Your task to perform on an android device: turn vacation reply on in the gmail app Image 0: 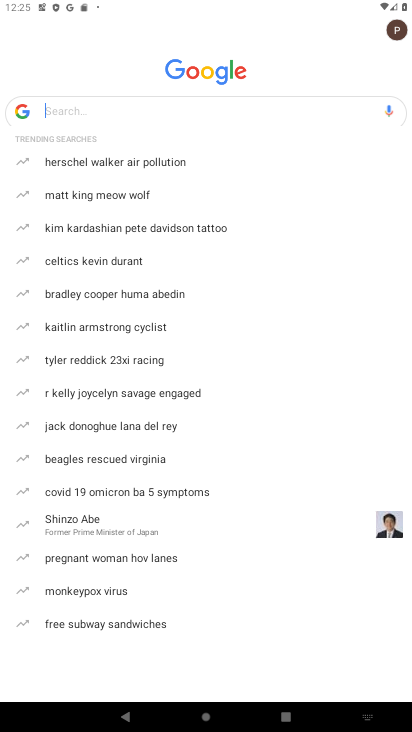
Step 0: press home button
Your task to perform on an android device: turn vacation reply on in the gmail app Image 1: 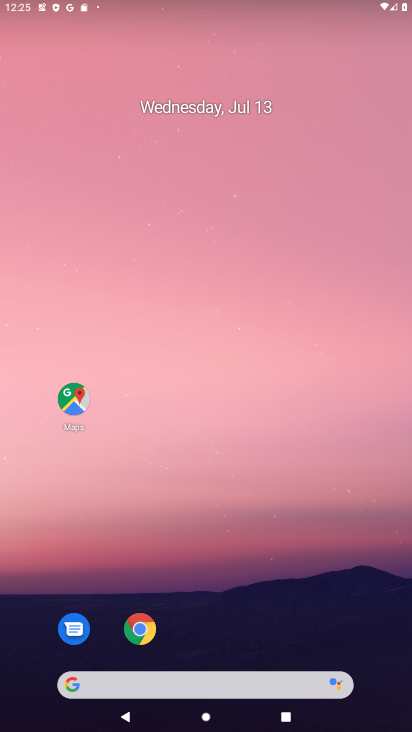
Step 1: drag from (229, 500) to (235, 176)
Your task to perform on an android device: turn vacation reply on in the gmail app Image 2: 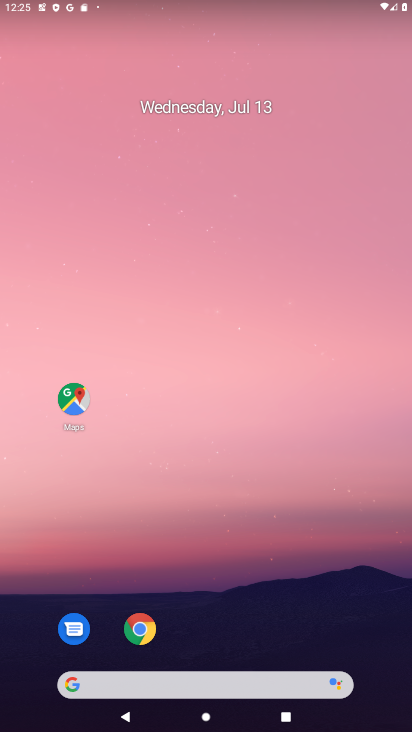
Step 2: drag from (241, 615) to (280, 169)
Your task to perform on an android device: turn vacation reply on in the gmail app Image 3: 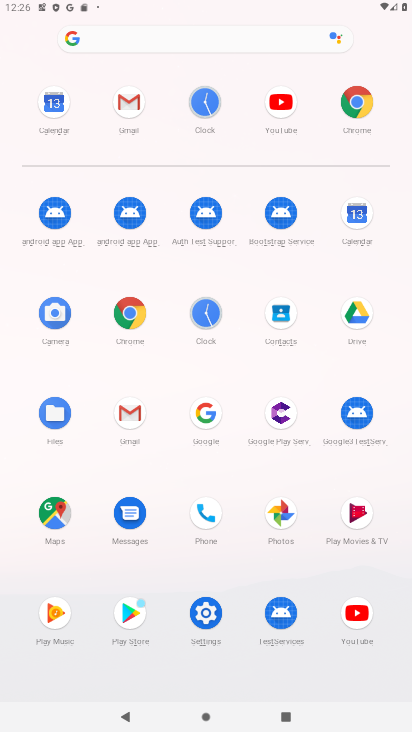
Step 3: click (127, 104)
Your task to perform on an android device: turn vacation reply on in the gmail app Image 4: 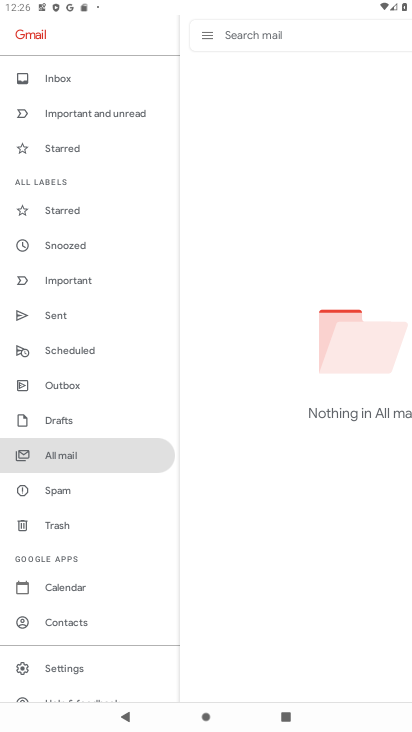
Step 4: click (63, 660)
Your task to perform on an android device: turn vacation reply on in the gmail app Image 5: 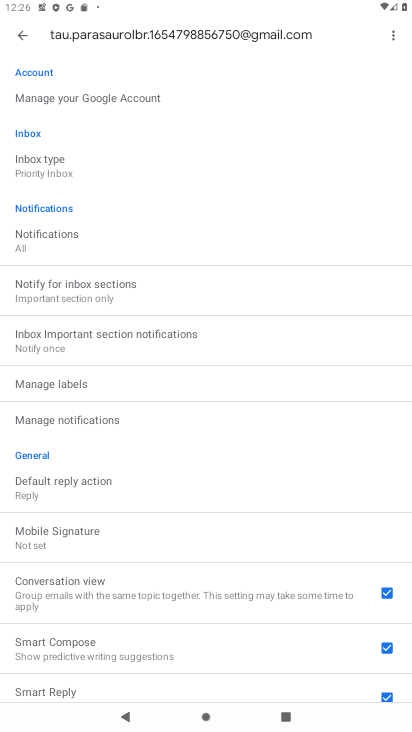
Step 5: drag from (149, 503) to (164, 279)
Your task to perform on an android device: turn vacation reply on in the gmail app Image 6: 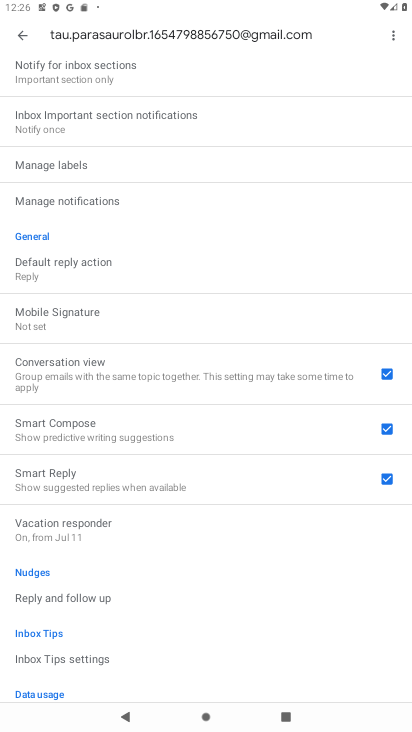
Step 6: click (120, 521)
Your task to perform on an android device: turn vacation reply on in the gmail app Image 7: 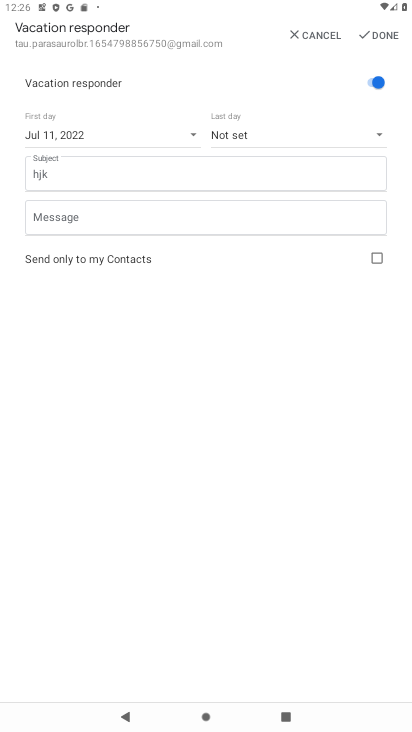
Step 7: task complete